Your task to perform on an android device: Open calendar and show me the third week of next month Image 0: 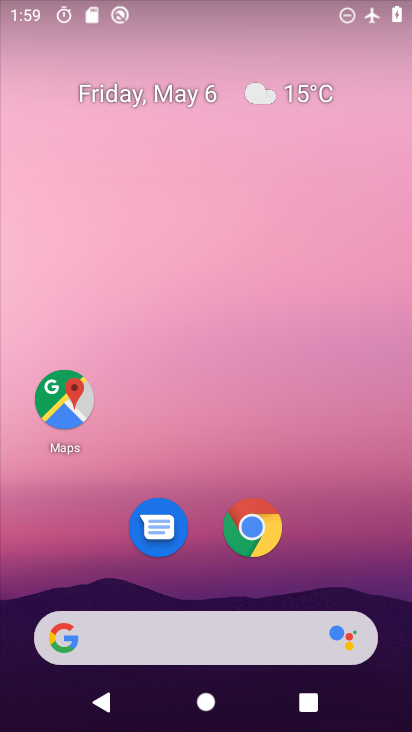
Step 0: drag from (368, 500) to (244, 1)
Your task to perform on an android device: Open calendar and show me the third week of next month Image 1: 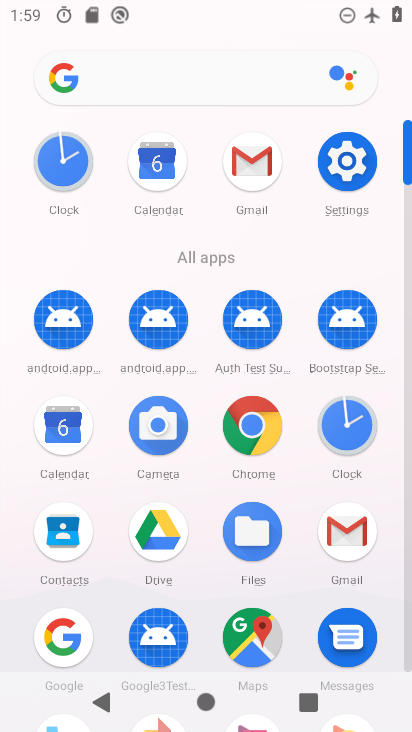
Step 1: click (158, 173)
Your task to perform on an android device: Open calendar and show me the third week of next month Image 2: 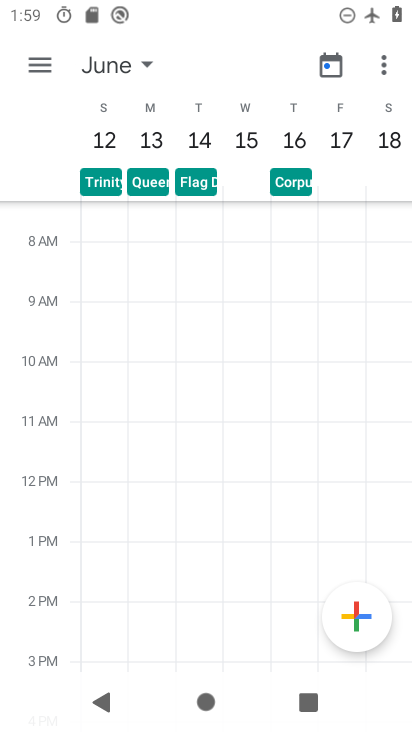
Step 2: task complete